Your task to perform on an android device: toggle show notifications on the lock screen Image 0: 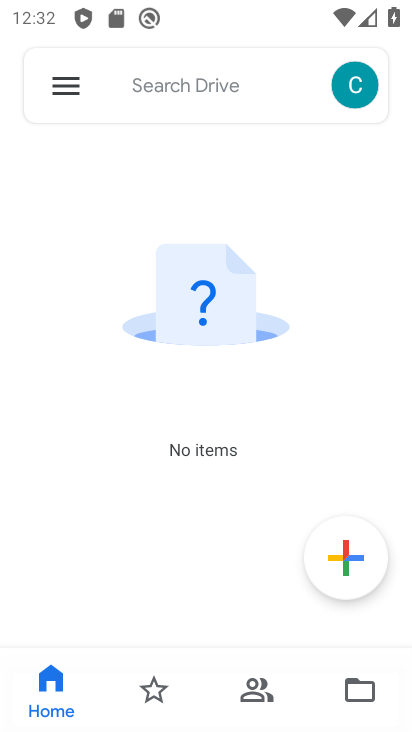
Step 0: press back button
Your task to perform on an android device: toggle show notifications on the lock screen Image 1: 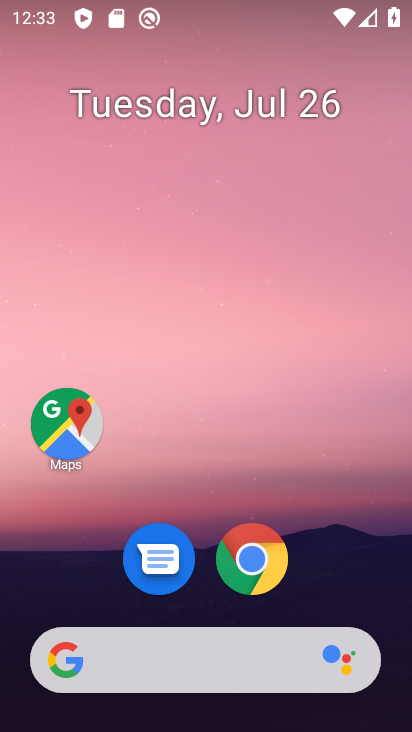
Step 1: drag from (164, 518) to (284, 10)
Your task to perform on an android device: toggle show notifications on the lock screen Image 2: 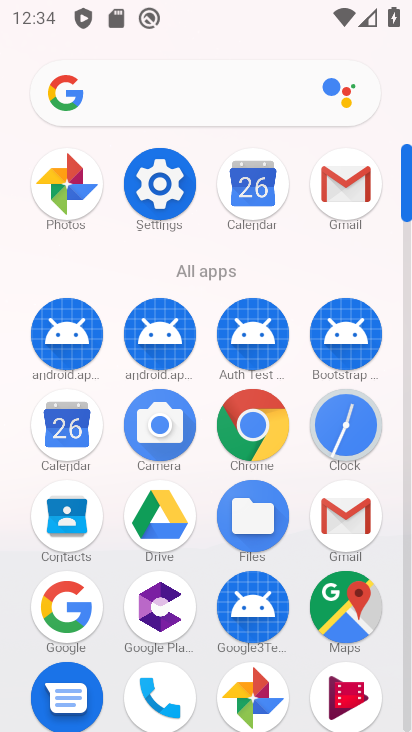
Step 2: click (166, 171)
Your task to perform on an android device: toggle show notifications on the lock screen Image 3: 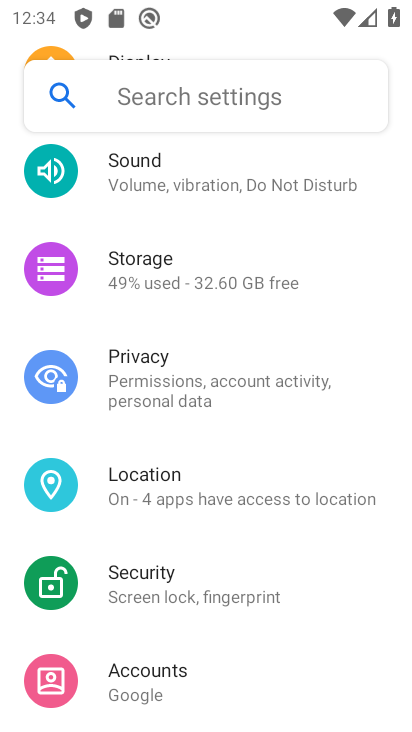
Step 3: drag from (195, 179) to (199, 718)
Your task to perform on an android device: toggle show notifications on the lock screen Image 4: 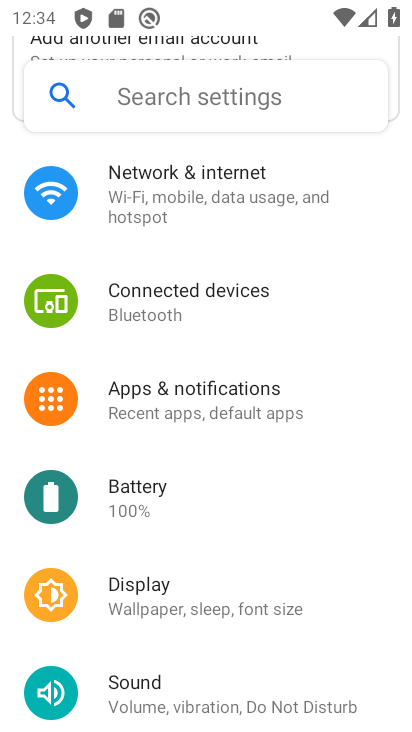
Step 4: drag from (232, 332) to (225, 393)
Your task to perform on an android device: toggle show notifications on the lock screen Image 5: 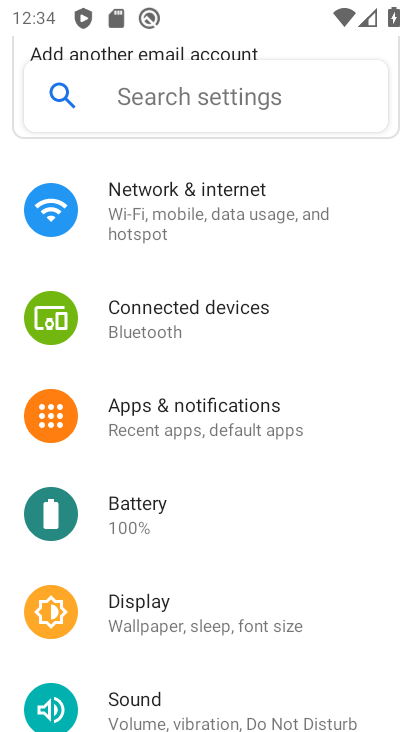
Step 5: click (200, 414)
Your task to perform on an android device: toggle show notifications on the lock screen Image 6: 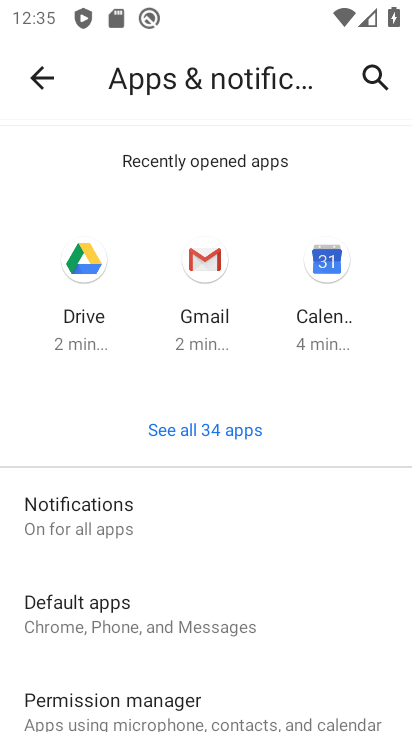
Step 6: click (133, 519)
Your task to perform on an android device: toggle show notifications on the lock screen Image 7: 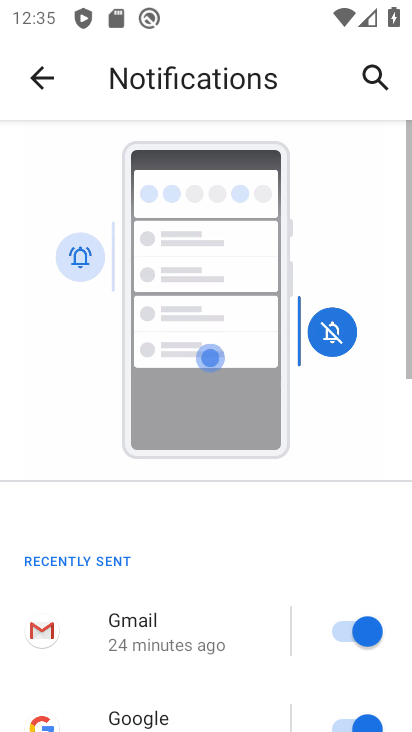
Step 7: drag from (123, 642) to (298, 14)
Your task to perform on an android device: toggle show notifications on the lock screen Image 8: 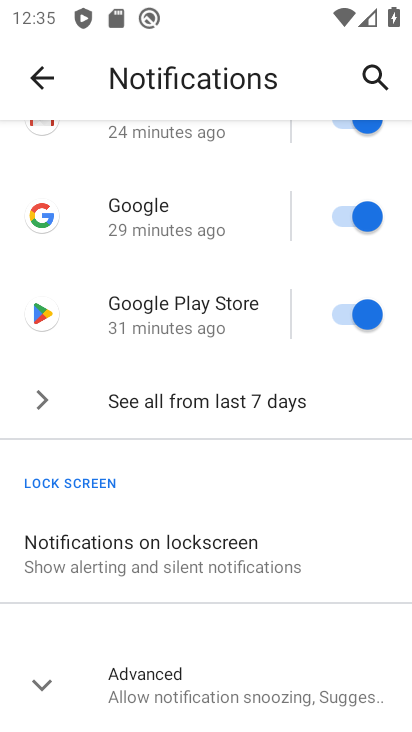
Step 8: click (157, 562)
Your task to perform on an android device: toggle show notifications on the lock screen Image 9: 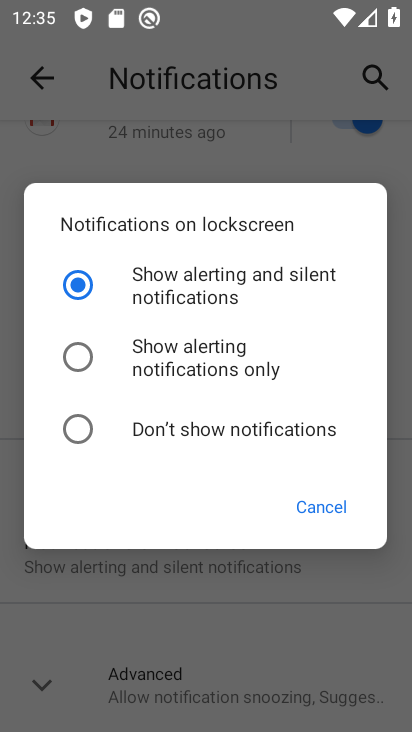
Step 9: click (87, 280)
Your task to perform on an android device: toggle show notifications on the lock screen Image 10: 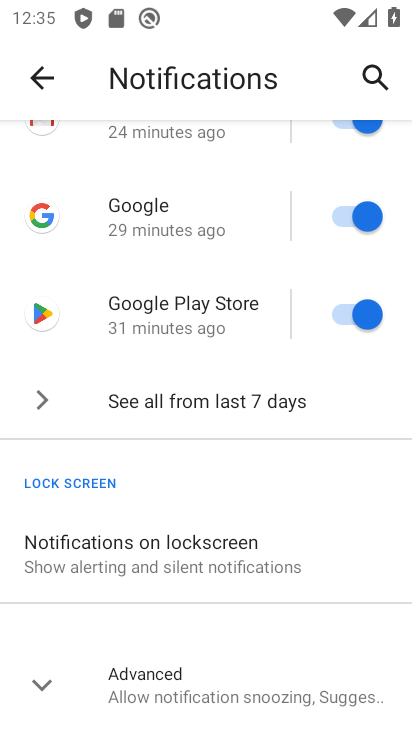
Step 10: task complete